Your task to perform on an android device: Is it going to rain tomorrow? Image 0: 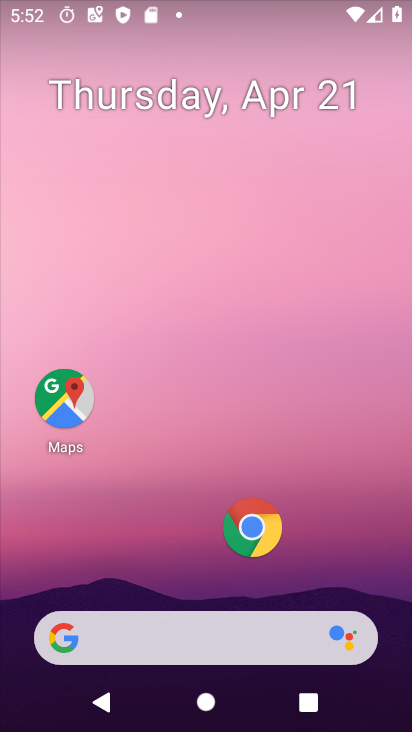
Step 0: click (277, 542)
Your task to perform on an android device: Is it going to rain tomorrow? Image 1: 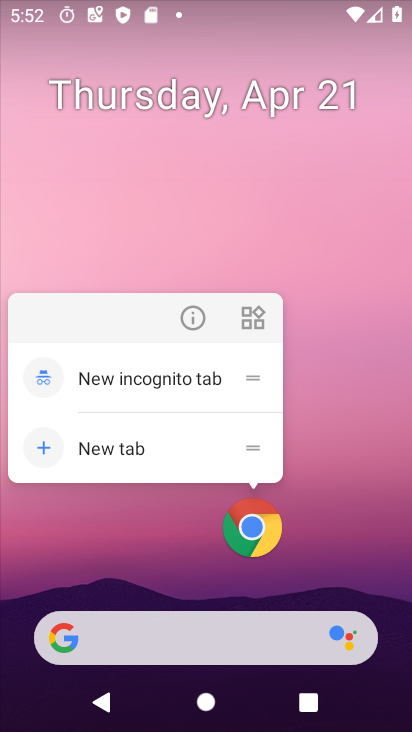
Step 1: click (255, 511)
Your task to perform on an android device: Is it going to rain tomorrow? Image 2: 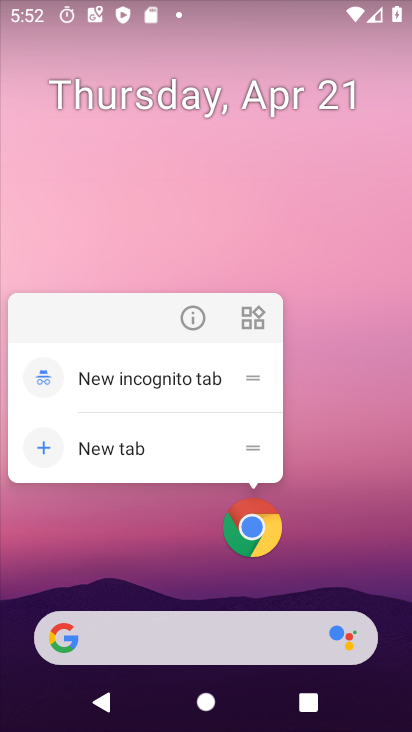
Step 2: click (252, 521)
Your task to perform on an android device: Is it going to rain tomorrow? Image 3: 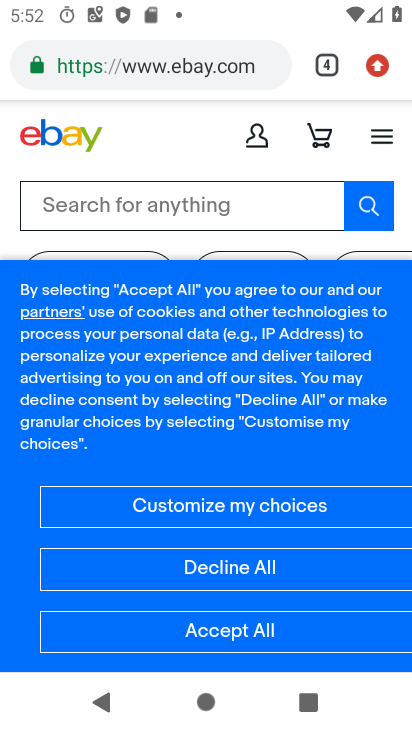
Step 3: press back button
Your task to perform on an android device: Is it going to rain tomorrow? Image 4: 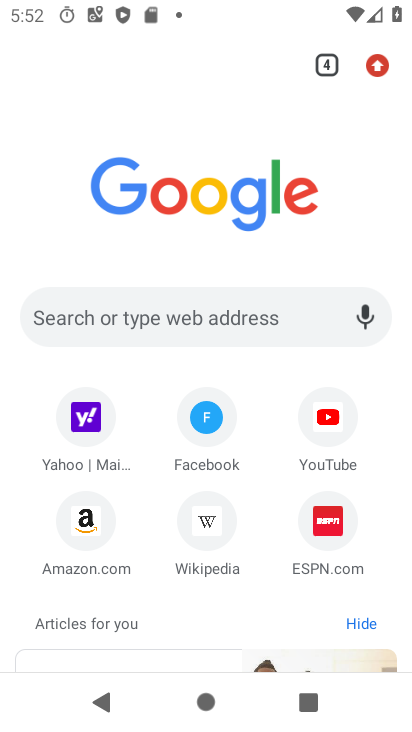
Step 4: press back button
Your task to perform on an android device: Is it going to rain tomorrow? Image 5: 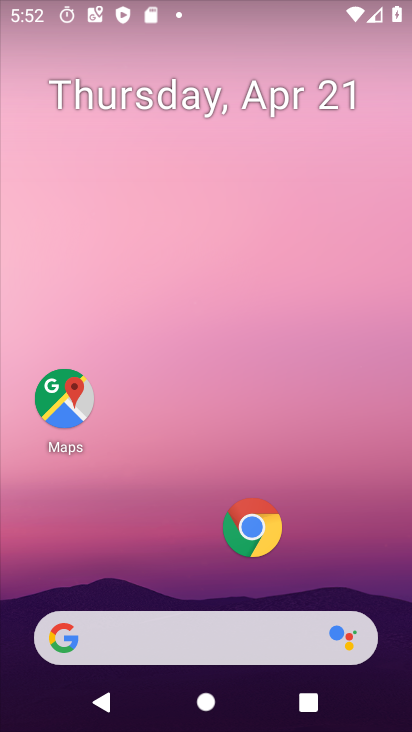
Step 5: click (193, 624)
Your task to perform on an android device: Is it going to rain tomorrow? Image 6: 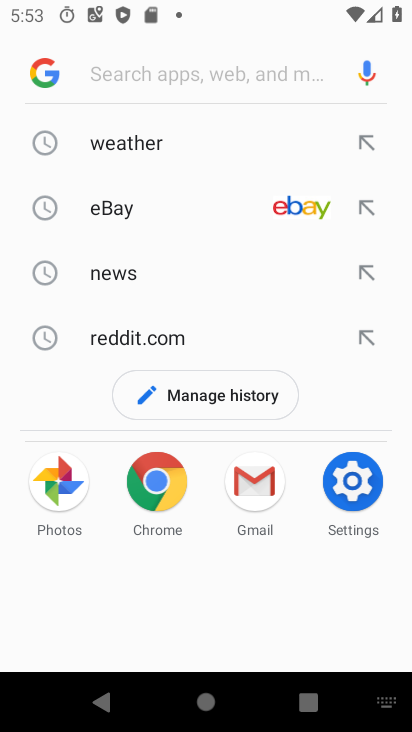
Step 6: click (128, 137)
Your task to perform on an android device: Is it going to rain tomorrow? Image 7: 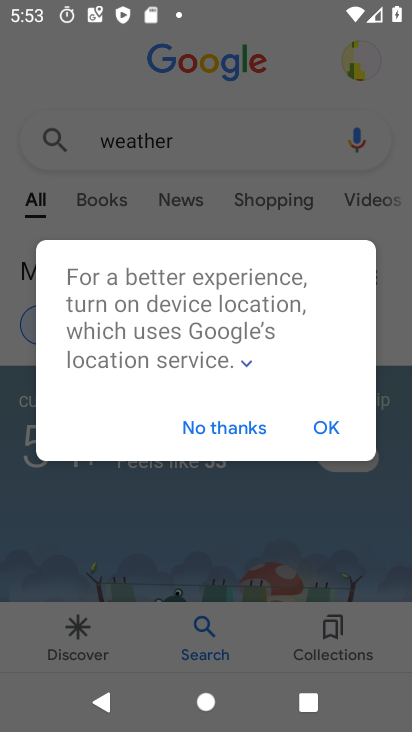
Step 7: click (207, 327)
Your task to perform on an android device: Is it going to rain tomorrow? Image 8: 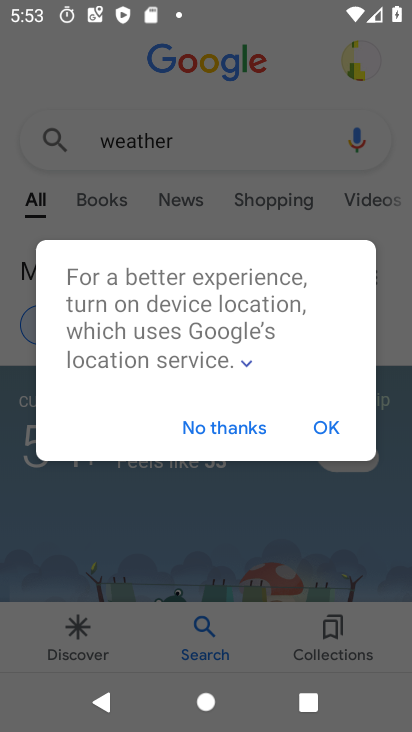
Step 8: click (231, 423)
Your task to perform on an android device: Is it going to rain tomorrow? Image 9: 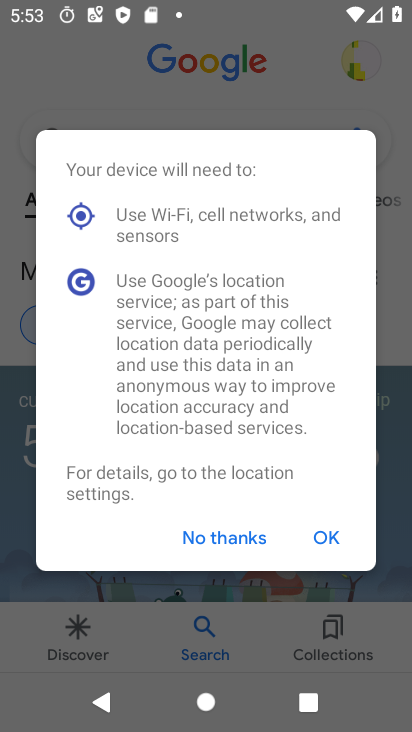
Step 9: click (231, 522)
Your task to perform on an android device: Is it going to rain tomorrow? Image 10: 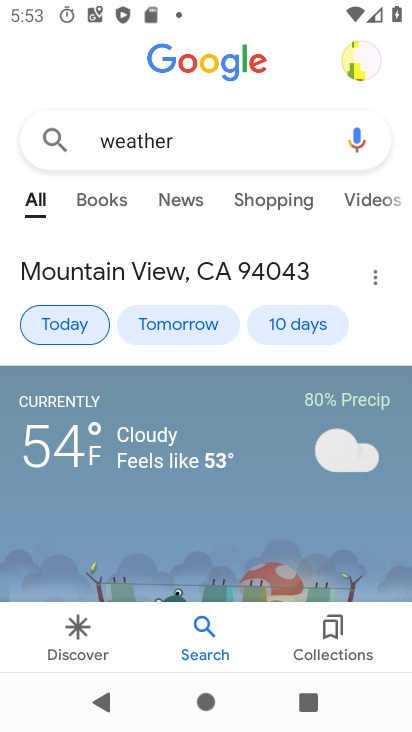
Step 10: click (146, 307)
Your task to perform on an android device: Is it going to rain tomorrow? Image 11: 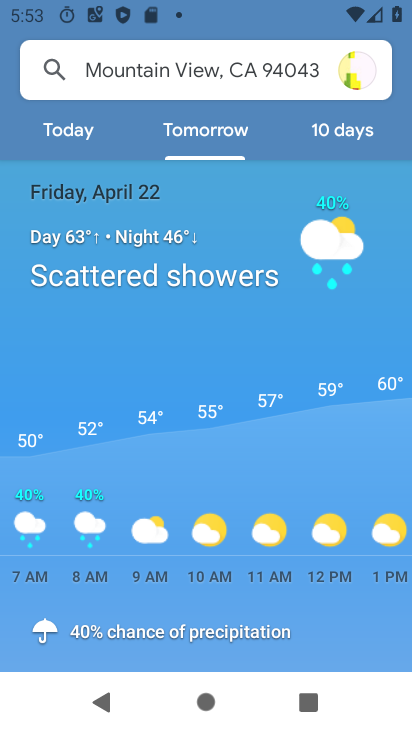
Step 11: task complete